Your task to perform on an android device: change the upload size in google photos Image 0: 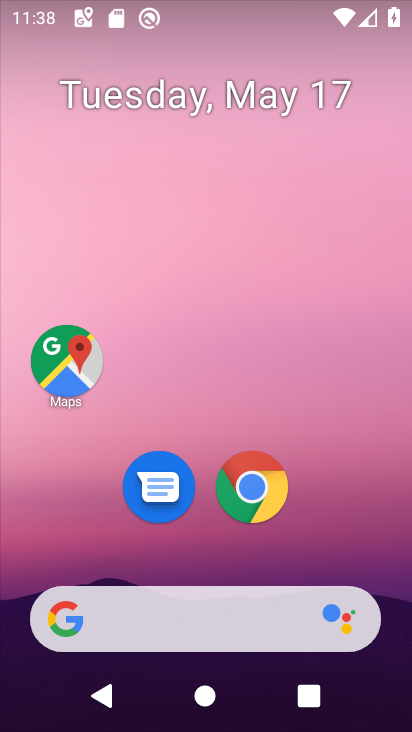
Step 0: drag from (394, 599) to (330, 191)
Your task to perform on an android device: change the upload size in google photos Image 1: 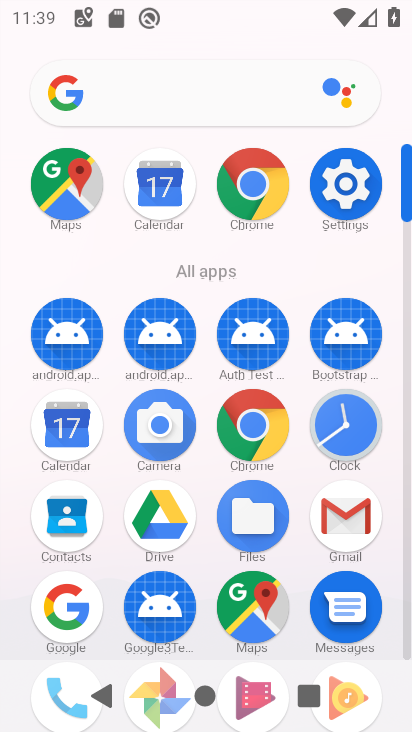
Step 1: click (351, 180)
Your task to perform on an android device: change the upload size in google photos Image 2: 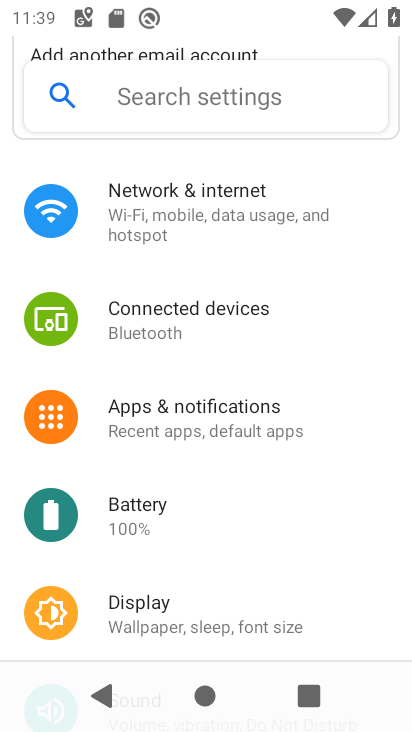
Step 2: press home button
Your task to perform on an android device: change the upload size in google photos Image 3: 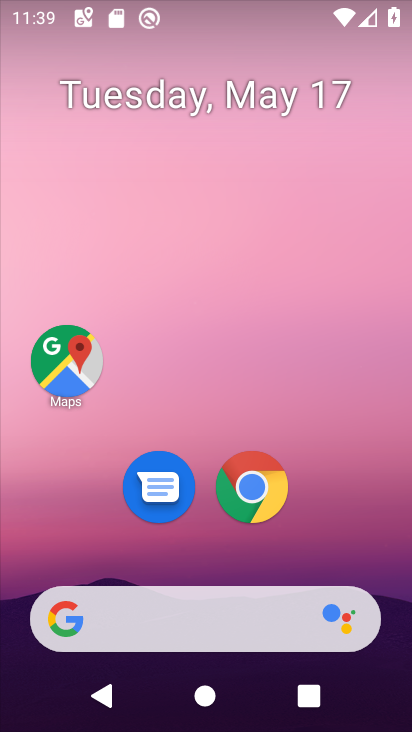
Step 3: drag from (383, 534) to (269, 71)
Your task to perform on an android device: change the upload size in google photos Image 4: 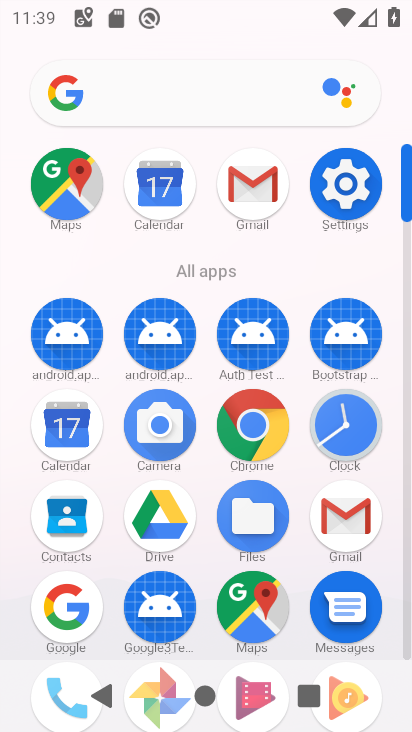
Step 4: click (408, 644)
Your task to perform on an android device: change the upload size in google photos Image 5: 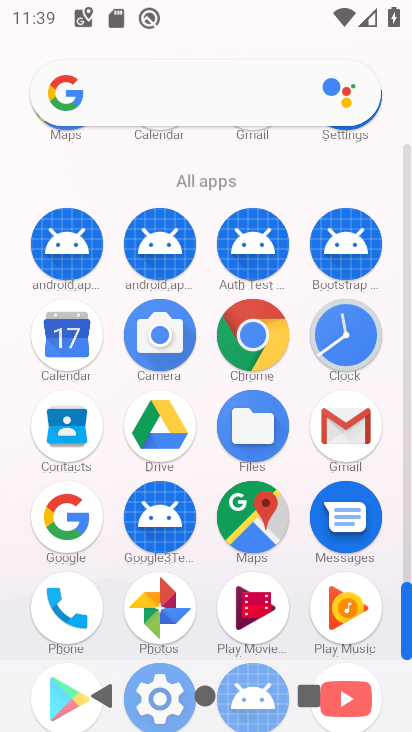
Step 5: click (137, 609)
Your task to perform on an android device: change the upload size in google photos Image 6: 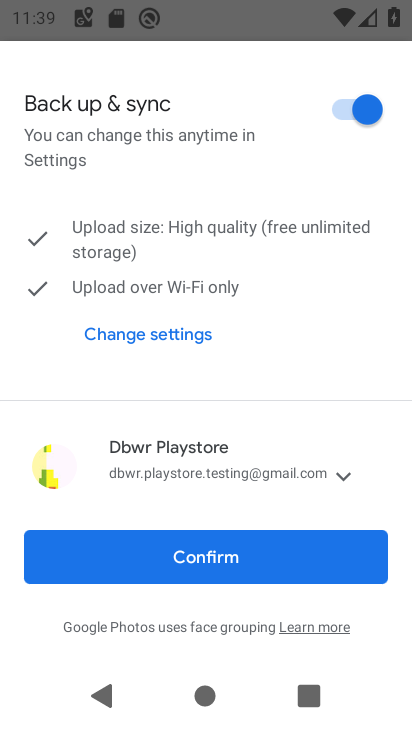
Step 6: click (220, 563)
Your task to perform on an android device: change the upload size in google photos Image 7: 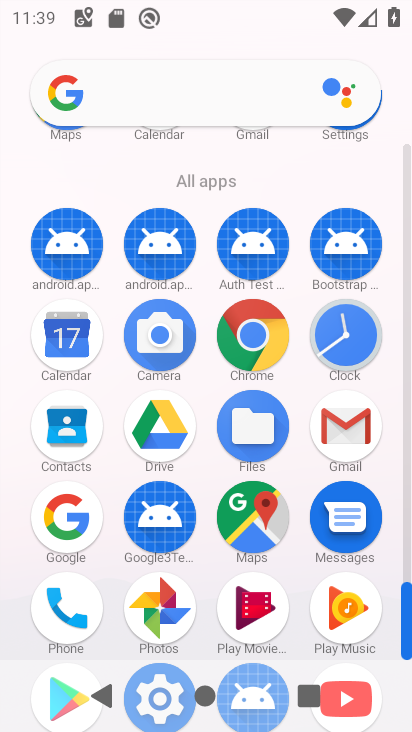
Step 7: click (172, 586)
Your task to perform on an android device: change the upload size in google photos Image 8: 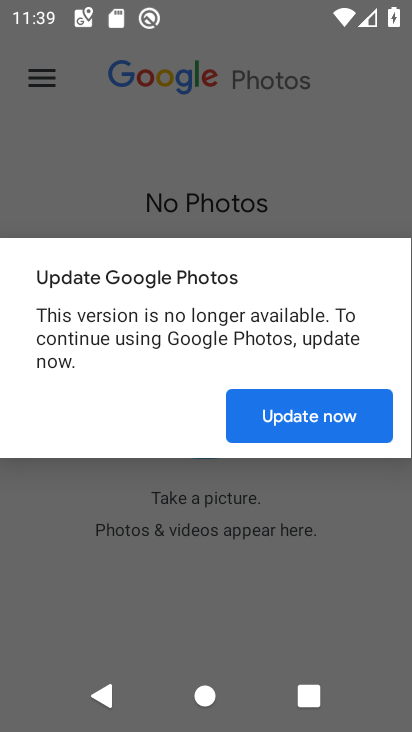
Step 8: click (336, 417)
Your task to perform on an android device: change the upload size in google photos Image 9: 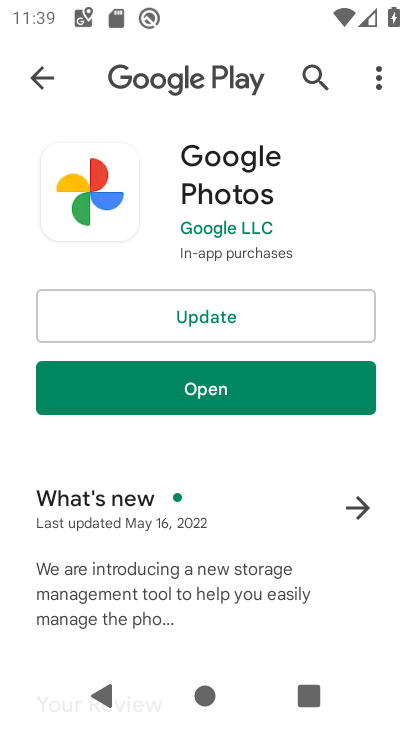
Step 9: click (284, 320)
Your task to perform on an android device: change the upload size in google photos Image 10: 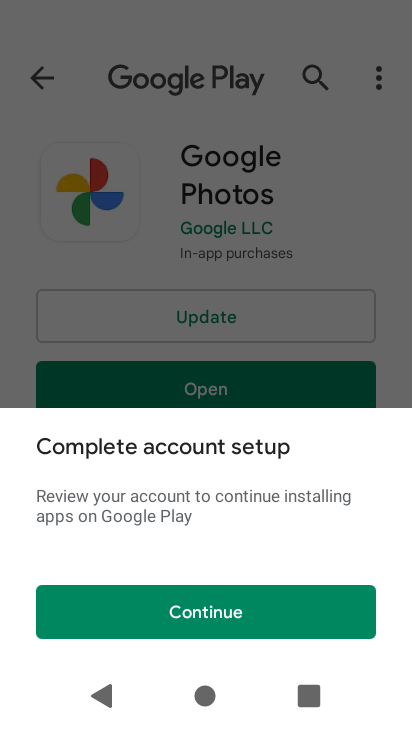
Step 10: click (281, 611)
Your task to perform on an android device: change the upload size in google photos Image 11: 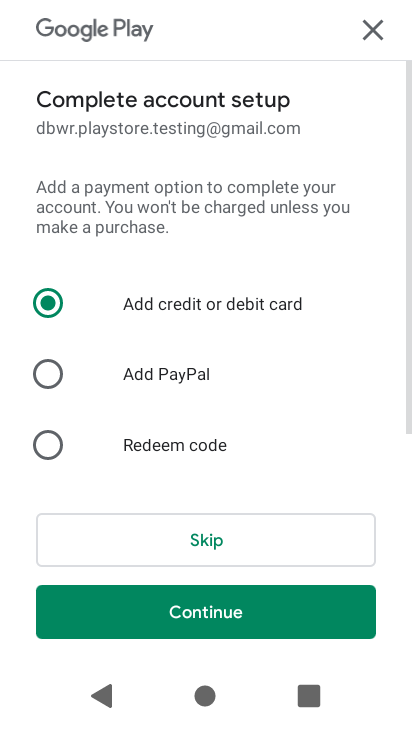
Step 11: click (303, 522)
Your task to perform on an android device: change the upload size in google photos Image 12: 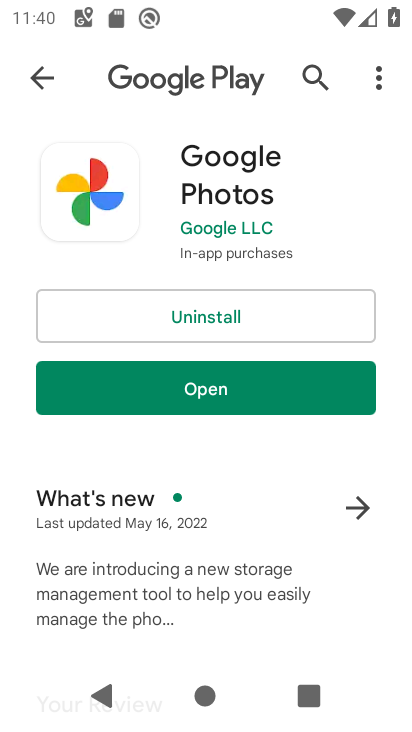
Step 12: click (243, 386)
Your task to perform on an android device: change the upload size in google photos Image 13: 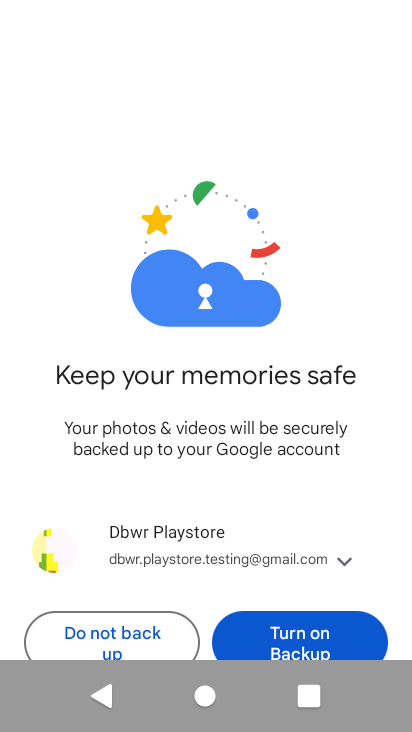
Step 13: click (278, 637)
Your task to perform on an android device: change the upload size in google photos Image 14: 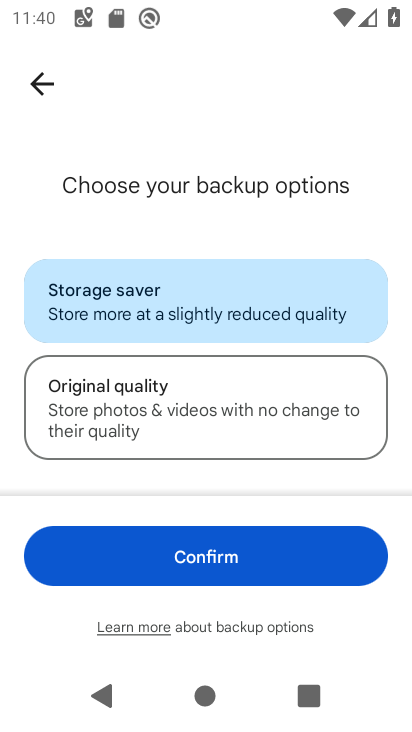
Step 14: click (234, 381)
Your task to perform on an android device: change the upload size in google photos Image 15: 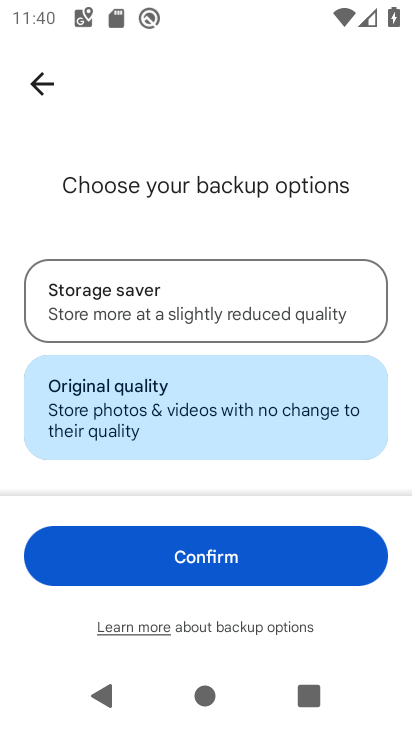
Step 15: click (250, 545)
Your task to perform on an android device: change the upload size in google photos Image 16: 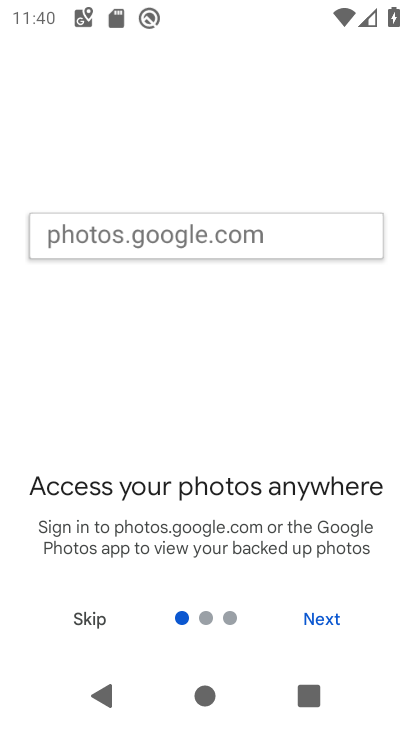
Step 16: click (95, 621)
Your task to perform on an android device: change the upload size in google photos Image 17: 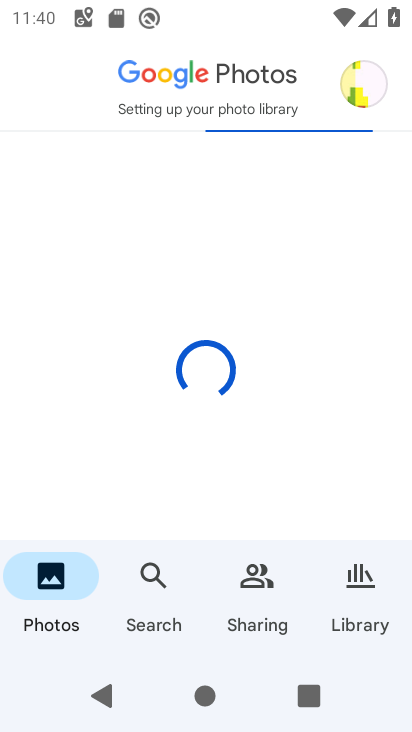
Step 17: task complete